Your task to perform on an android device: check android version Image 0: 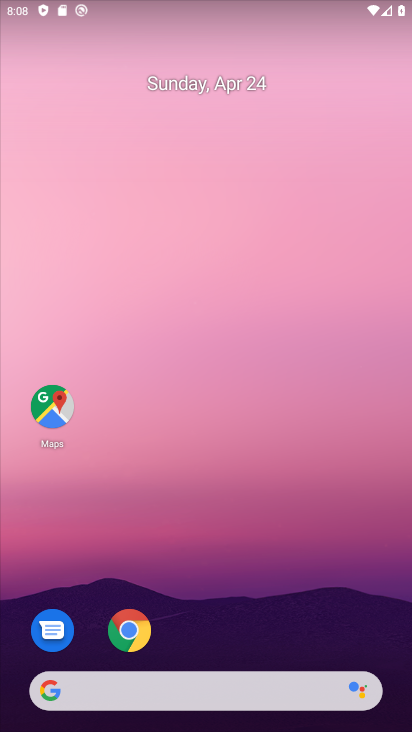
Step 0: drag from (260, 618) to (343, 0)
Your task to perform on an android device: check android version Image 1: 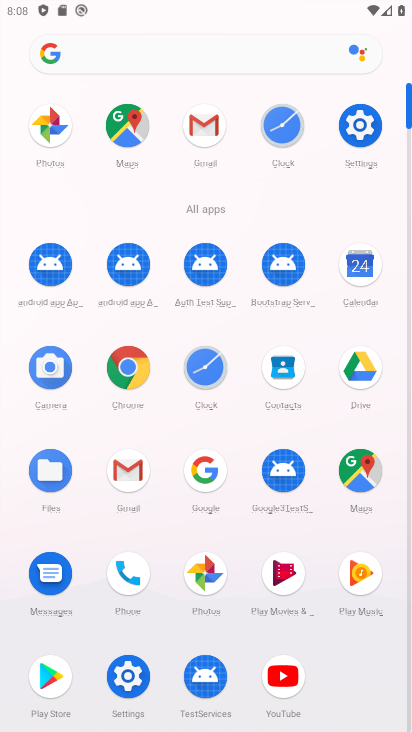
Step 1: click (368, 119)
Your task to perform on an android device: check android version Image 2: 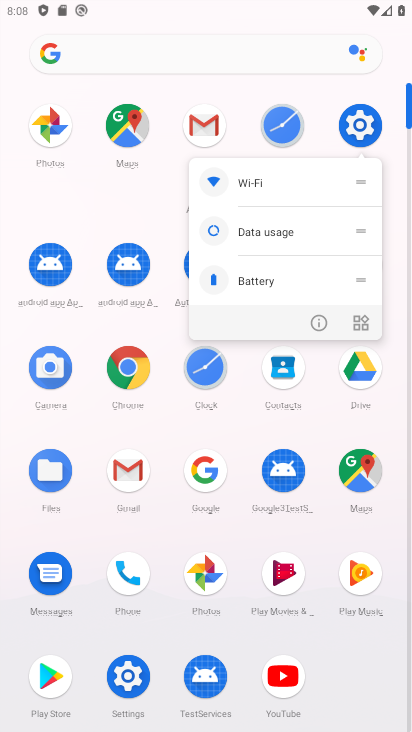
Step 2: click (370, 123)
Your task to perform on an android device: check android version Image 3: 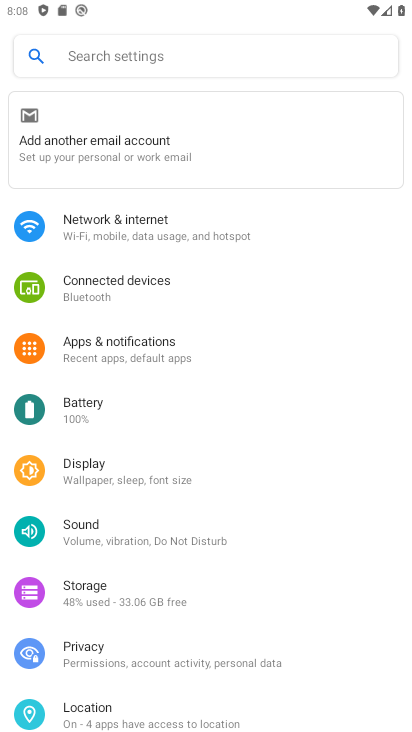
Step 3: drag from (178, 578) to (153, 253)
Your task to perform on an android device: check android version Image 4: 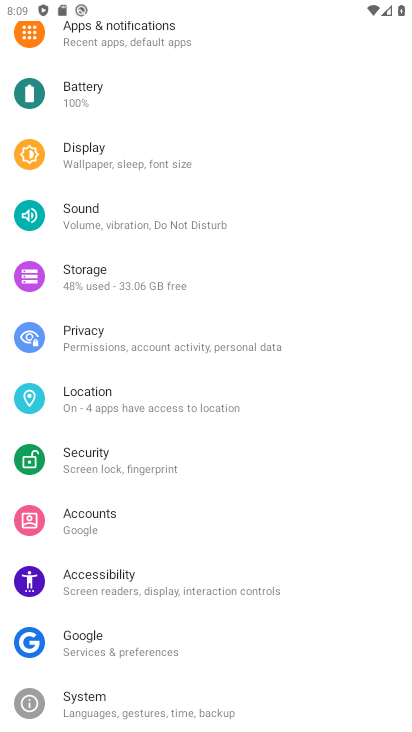
Step 4: drag from (171, 546) to (180, 397)
Your task to perform on an android device: check android version Image 5: 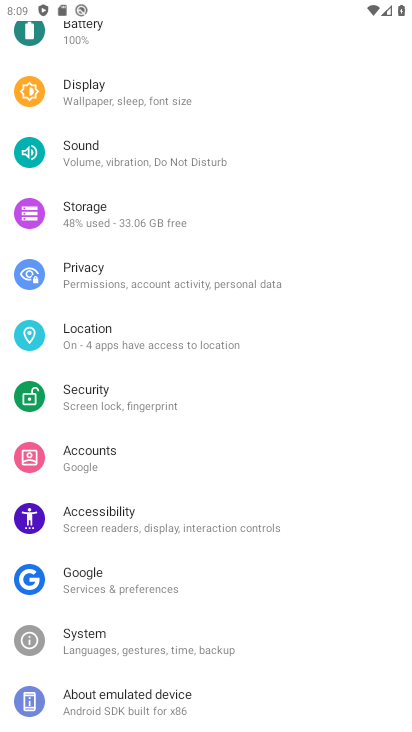
Step 5: drag from (185, 630) to (249, 202)
Your task to perform on an android device: check android version Image 6: 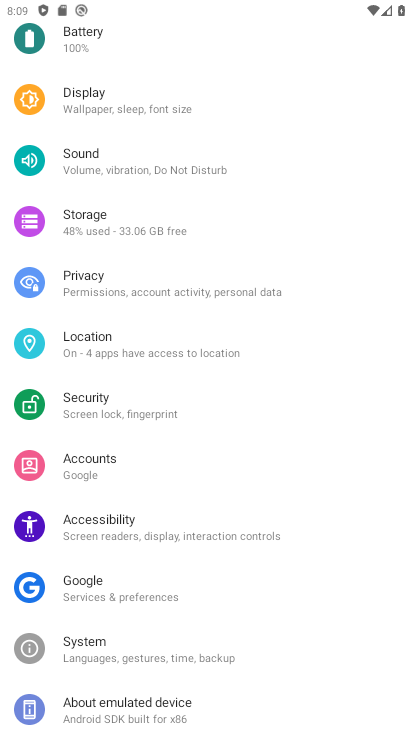
Step 6: click (167, 708)
Your task to perform on an android device: check android version Image 7: 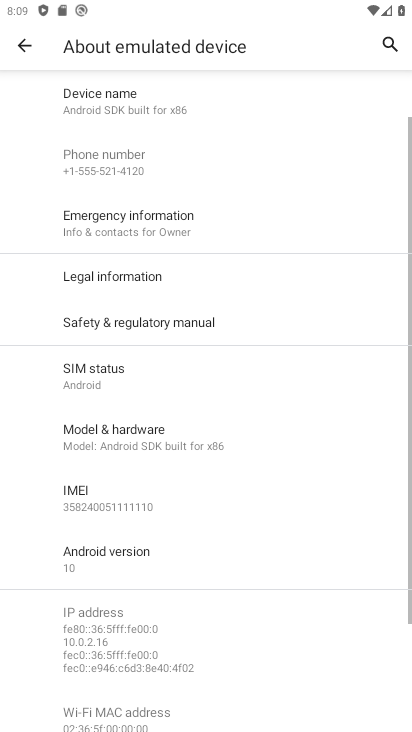
Step 7: drag from (232, 439) to (290, 187)
Your task to perform on an android device: check android version Image 8: 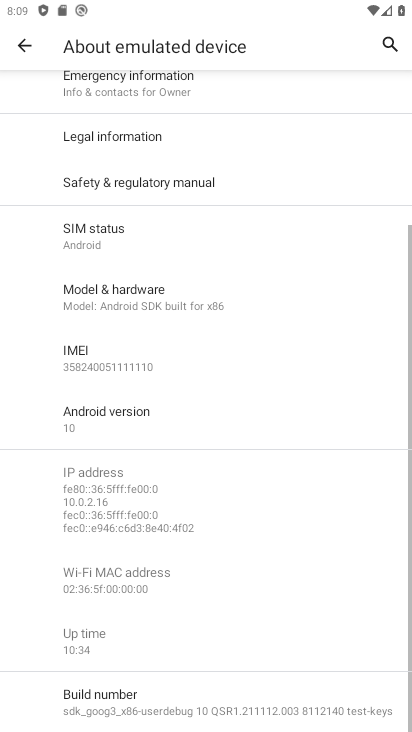
Step 8: click (159, 428)
Your task to perform on an android device: check android version Image 9: 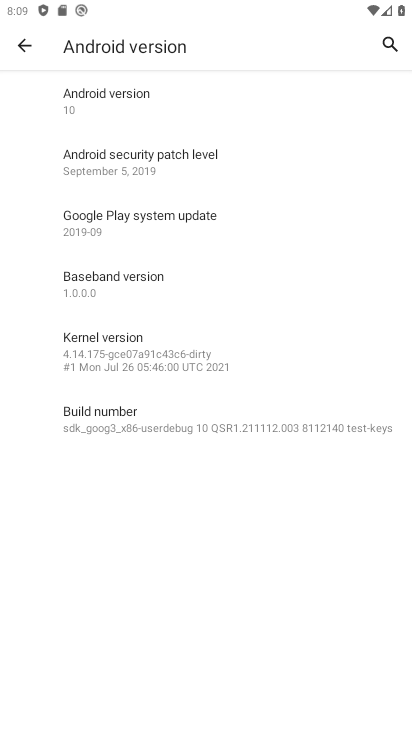
Step 9: task complete